Your task to perform on an android device: Open calendar and show me the fourth week of next month Image 0: 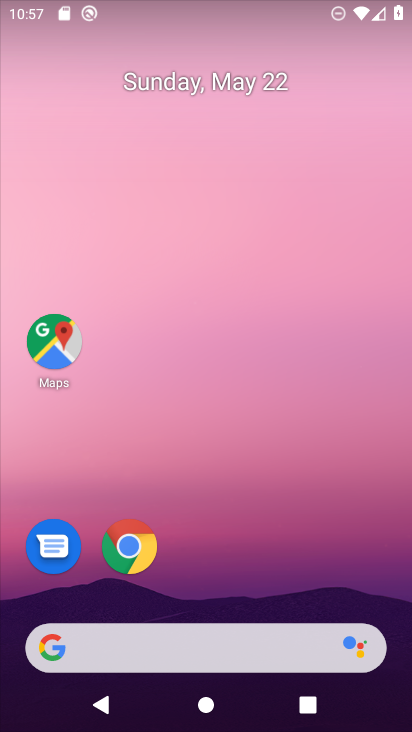
Step 0: drag from (188, 594) to (175, 19)
Your task to perform on an android device: Open calendar and show me the fourth week of next month Image 1: 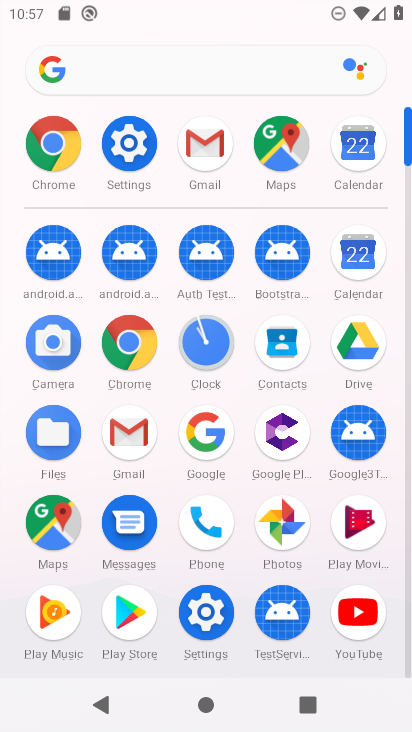
Step 1: click (359, 259)
Your task to perform on an android device: Open calendar and show me the fourth week of next month Image 2: 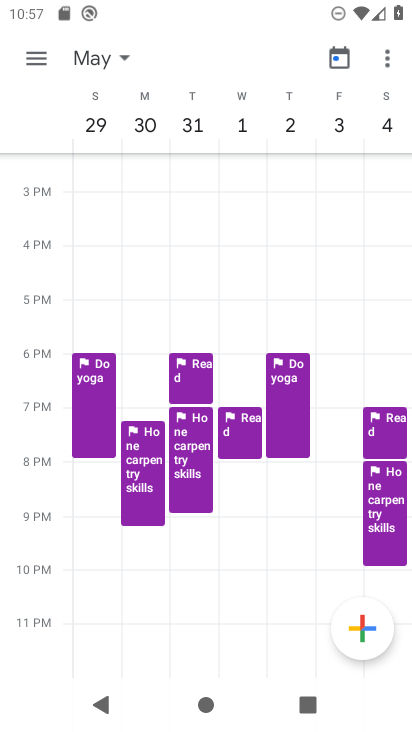
Step 2: task complete